Your task to perform on an android device: turn off smart reply in the gmail app Image 0: 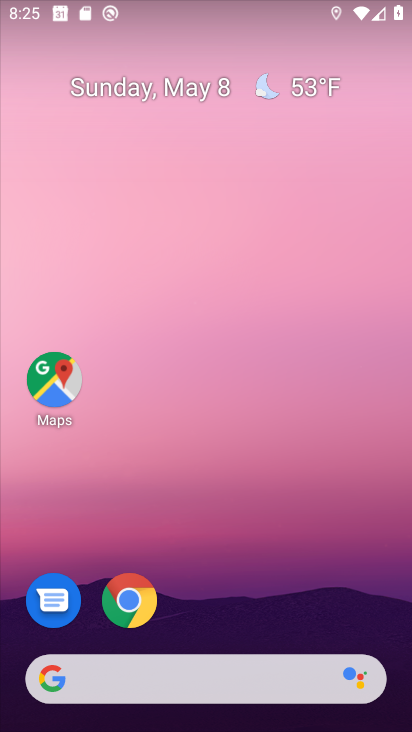
Step 0: drag from (226, 626) to (267, 215)
Your task to perform on an android device: turn off smart reply in the gmail app Image 1: 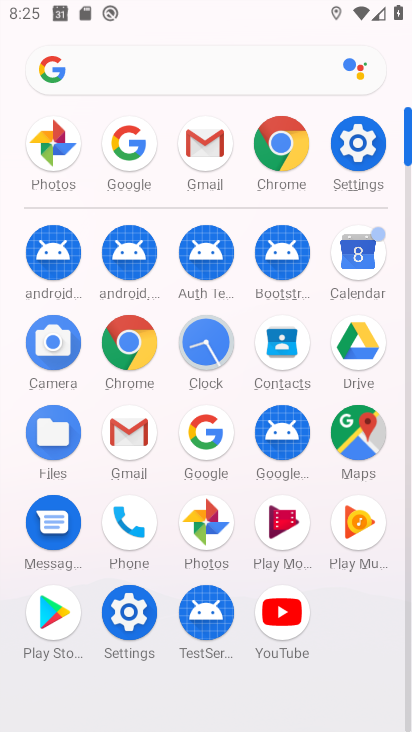
Step 1: click (204, 185)
Your task to perform on an android device: turn off smart reply in the gmail app Image 2: 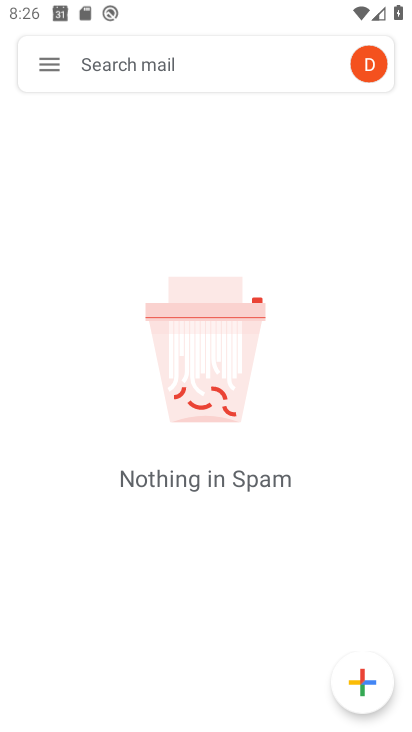
Step 2: click (47, 78)
Your task to perform on an android device: turn off smart reply in the gmail app Image 3: 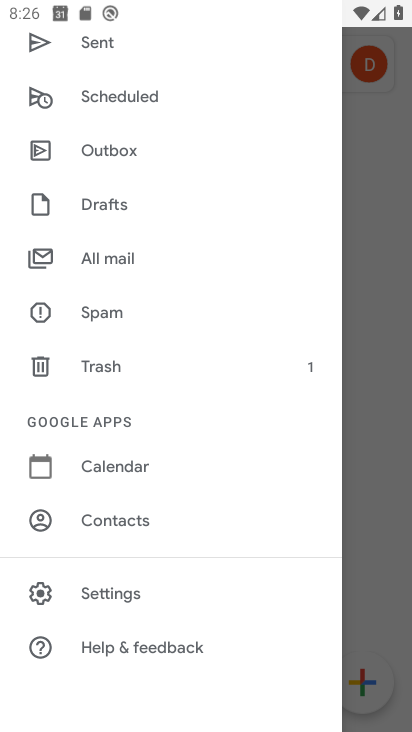
Step 3: click (43, 602)
Your task to perform on an android device: turn off smart reply in the gmail app Image 4: 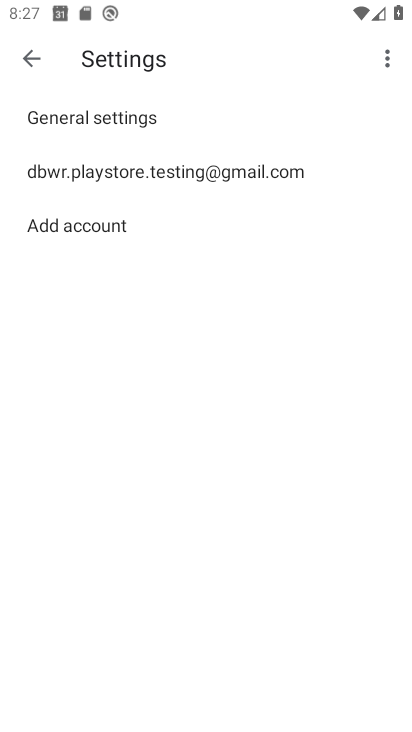
Step 4: click (125, 190)
Your task to perform on an android device: turn off smart reply in the gmail app Image 5: 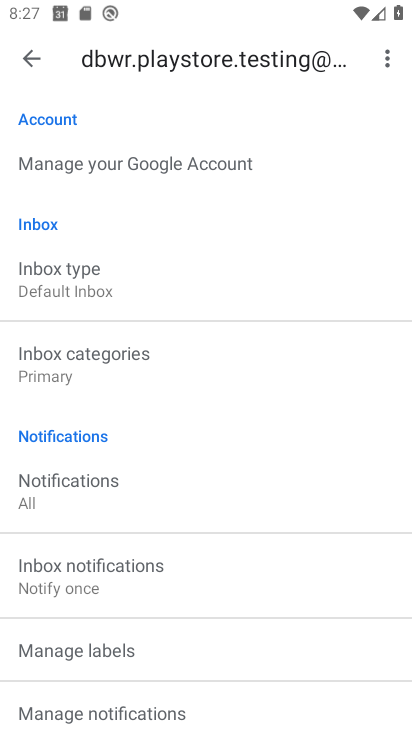
Step 5: drag from (148, 620) to (134, 370)
Your task to perform on an android device: turn off smart reply in the gmail app Image 6: 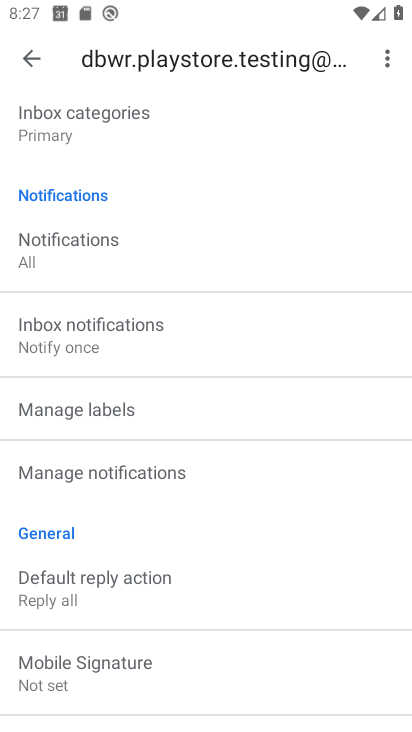
Step 6: drag from (224, 552) to (295, 173)
Your task to perform on an android device: turn off smart reply in the gmail app Image 7: 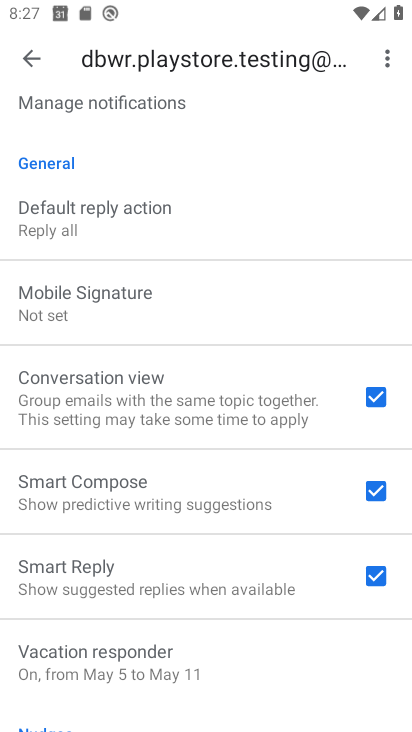
Step 7: click (146, 559)
Your task to perform on an android device: turn off smart reply in the gmail app Image 8: 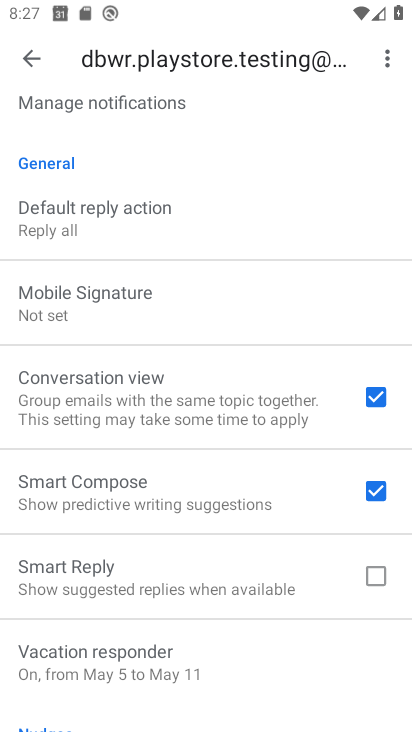
Step 8: task complete